Your task to perform on an android device: turn on wifi Image 0: 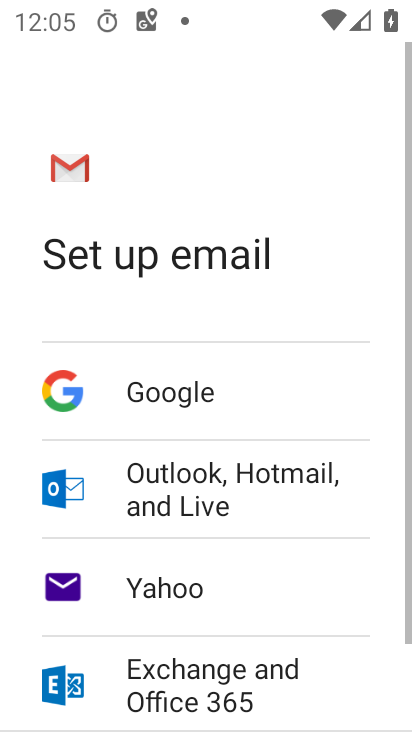
Step 0: drag from (237, 673) to (231, 225)
Your task to perform on an android device: turn on wifi Image 1: 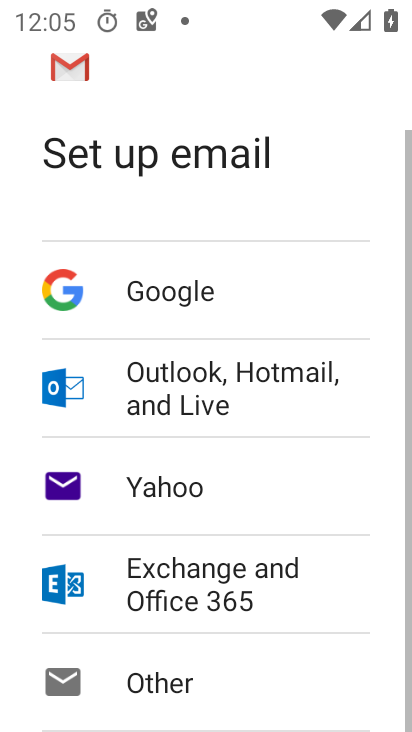
Step 1: press home button
Your task to perform on an android device: turn on wifi Image 2: 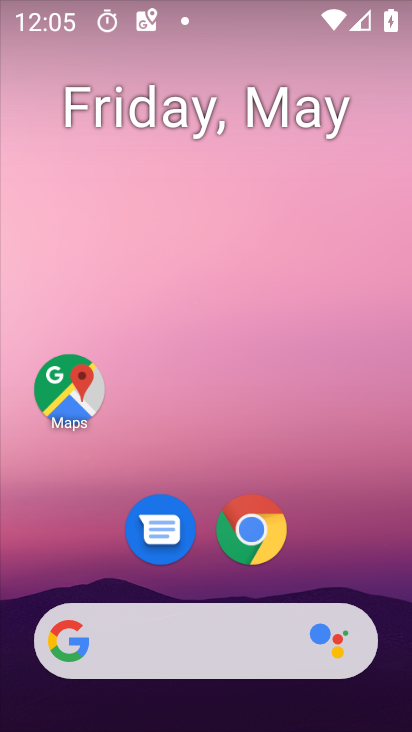
Step 2: drag from (245, 467) to (264, 29)
Your task to perform on an android device: turn on wifi Image 3: 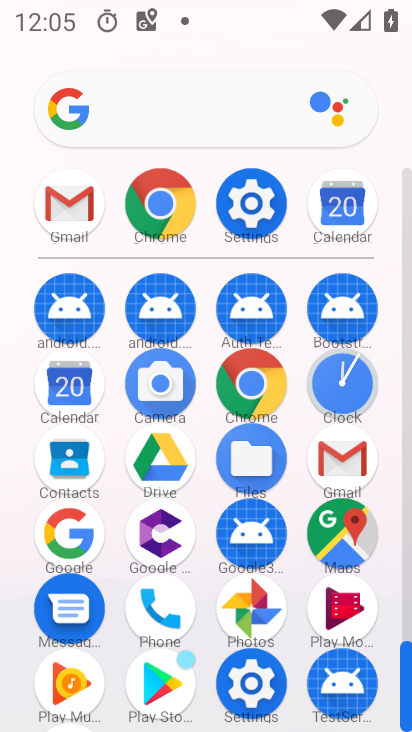
Step 3: click (262, 210)
Your task to perform on an android device: turn on wifi Image 4: 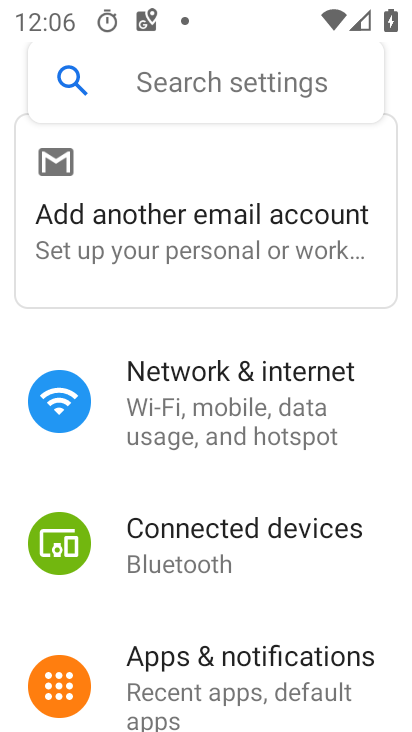
Step 4: click (252, 418)
Your task to perform on an android device: turn on wifi Image 5: 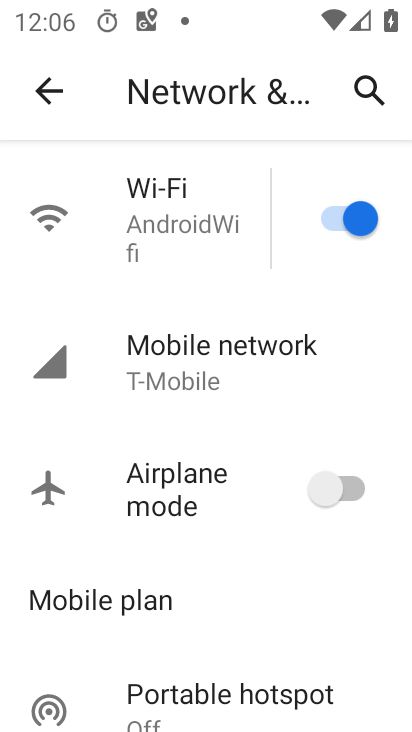
Step 5: task complete